Your task to perform on an android device: turn notification dots off Image 0: 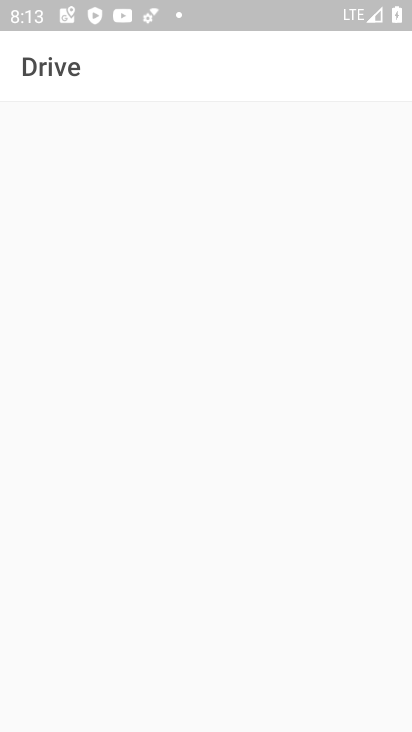
Step 0: press home button
Your task to perform on an android device: turn notification dots off Image 1: 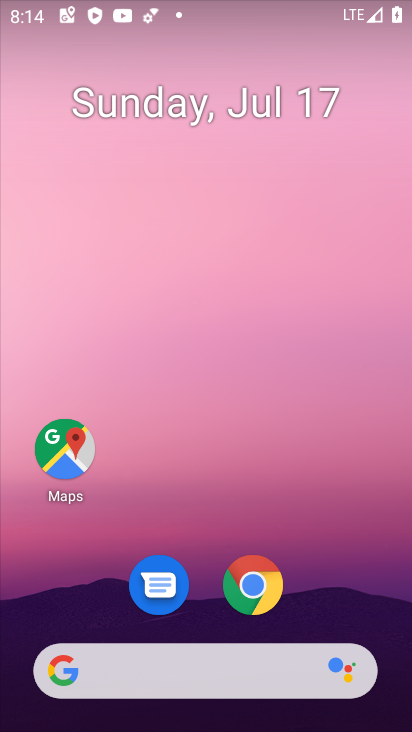
Step 1: drag from (301, 603) to (297, 0)
Your task to perform on an android device: turn notification dots off Image 2: 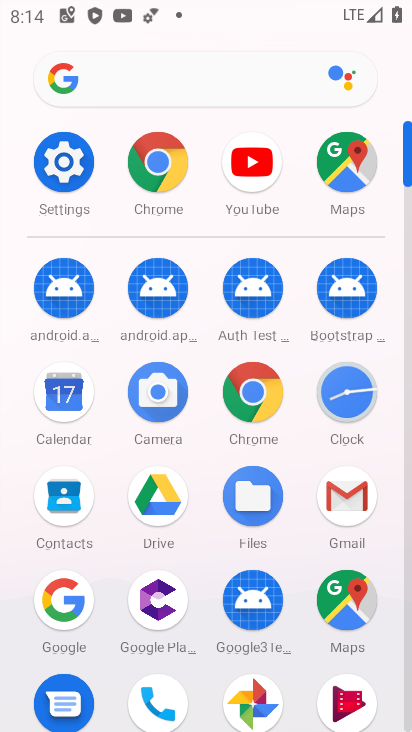
Step 2: click (56, 156)
Your task to perform on an android device: turn notification dots off Image 3: 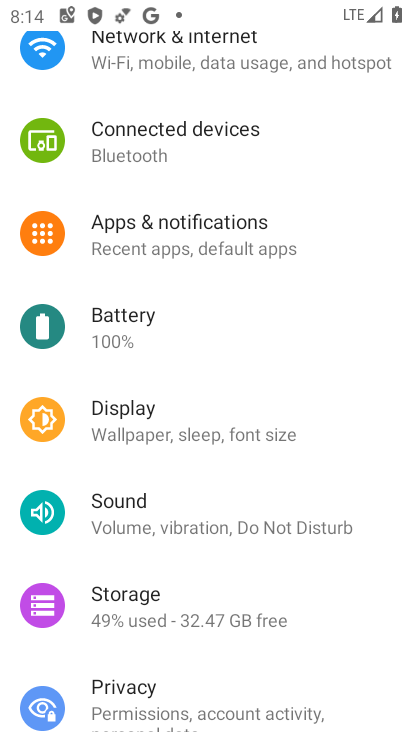
Step 3: drag from (216, 178) to (281, 440)
Your task to perform on an android device: turn notification dots off Image 4: 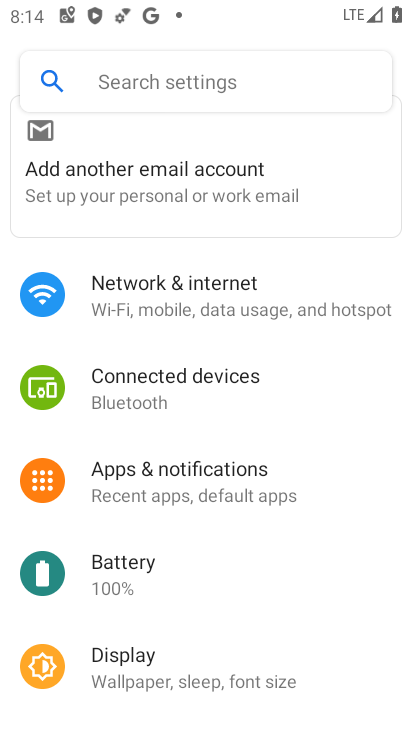
Step 4: click (259, 482)
Your task to perform on an android device: turn notification dots off Image 5: 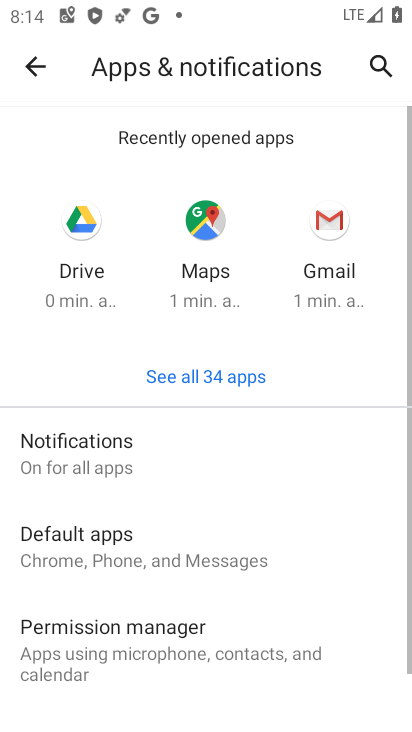
Step 5: click (120, 455)
Your task to perform on an android device: turn notification dots off Image 6: 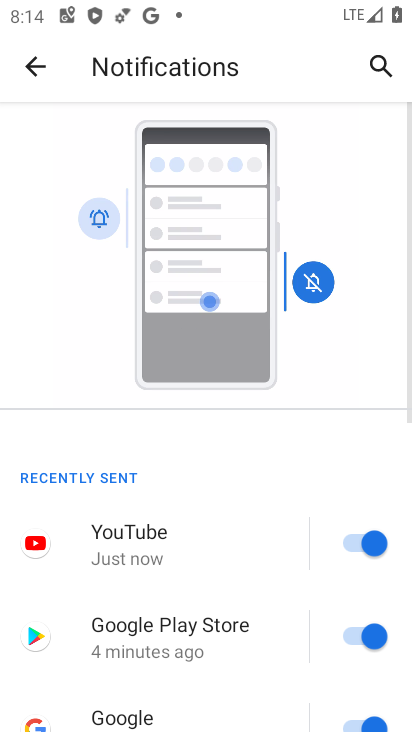
Step 6: drag from (222, 535) to (229, 54)
Your task to perform on an android device: turn notification dots off Image 7: 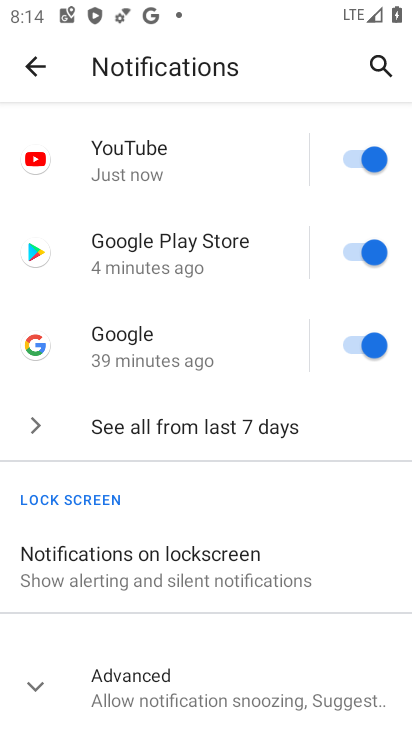
Step 7: click (34, 682)
Your task to perform on an android device: turn notification dots off Image 8: 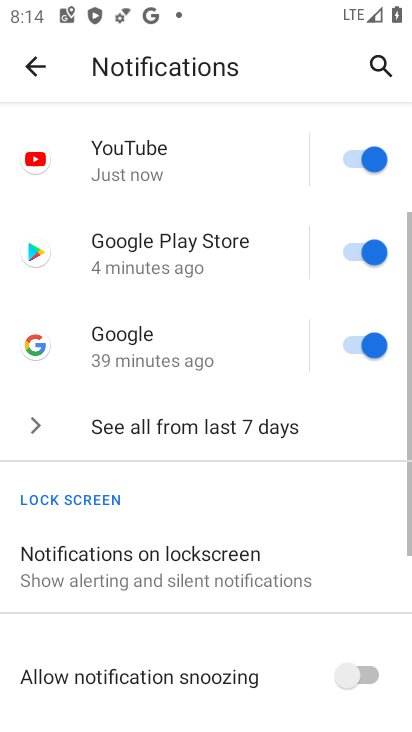
Step 8: task complete